Your task to perform on an android device: Open internet settings Image 0: 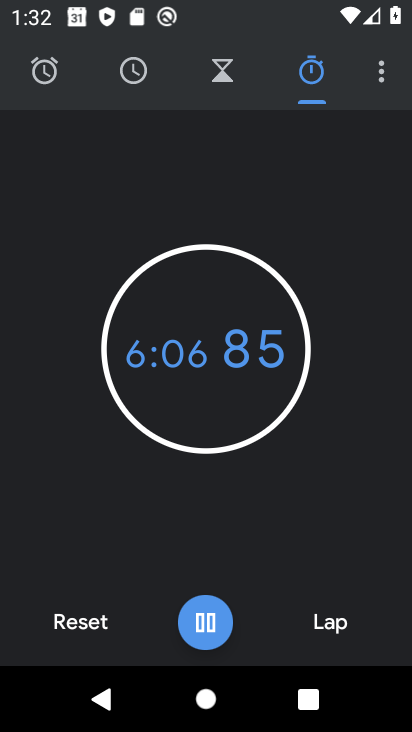
Step 0: press home button
Your task to perform on an android device: Open internet settings Image 1: 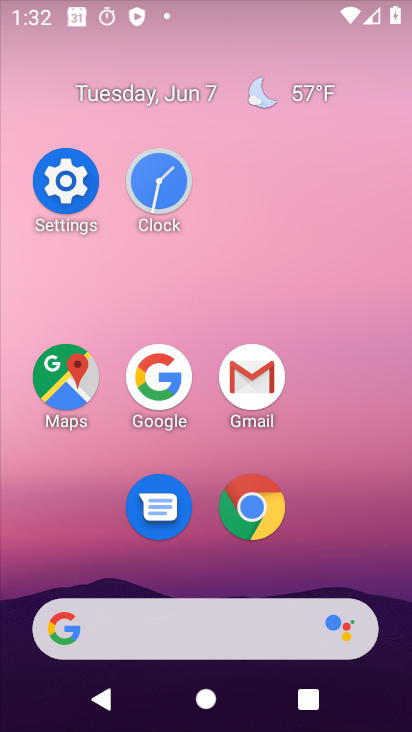
Step 1: click (83, 175)
Your task to perform on an android device: Open internet settings Image 2: 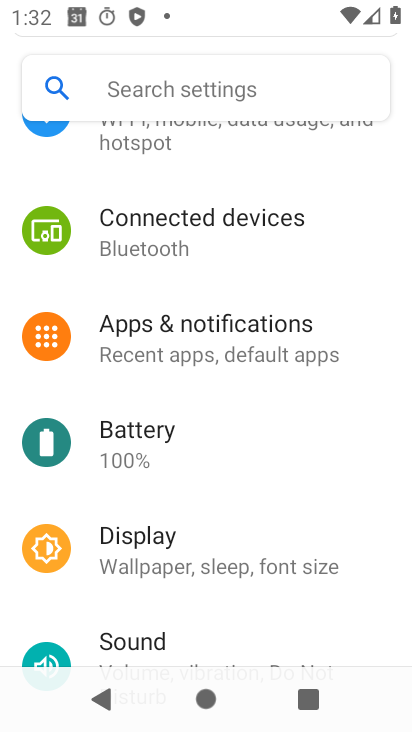
Step 2: drag from (266, 231) to (332, 505)
Your task to perform on an android device: Open internet settings Image 3: 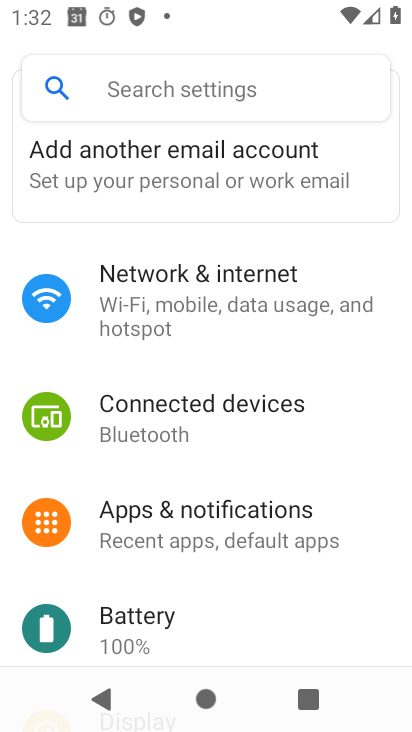
Step 3: click (239, 310)
Your task to perform on an android device: Open internet settings Image 4: 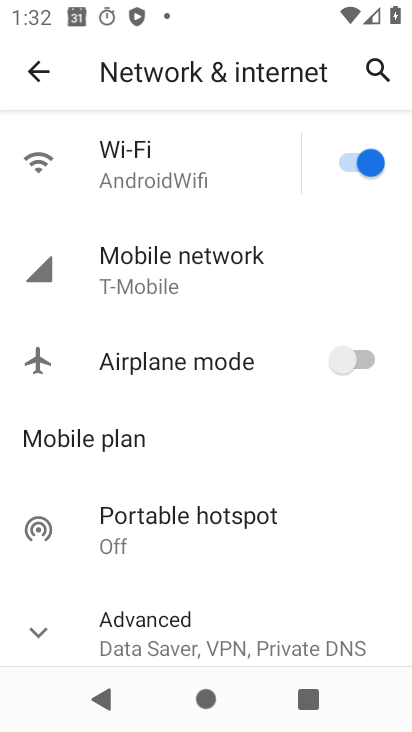
Step 4: task complete